Your task to perform on an android device: open device folders in google photos Image 0: 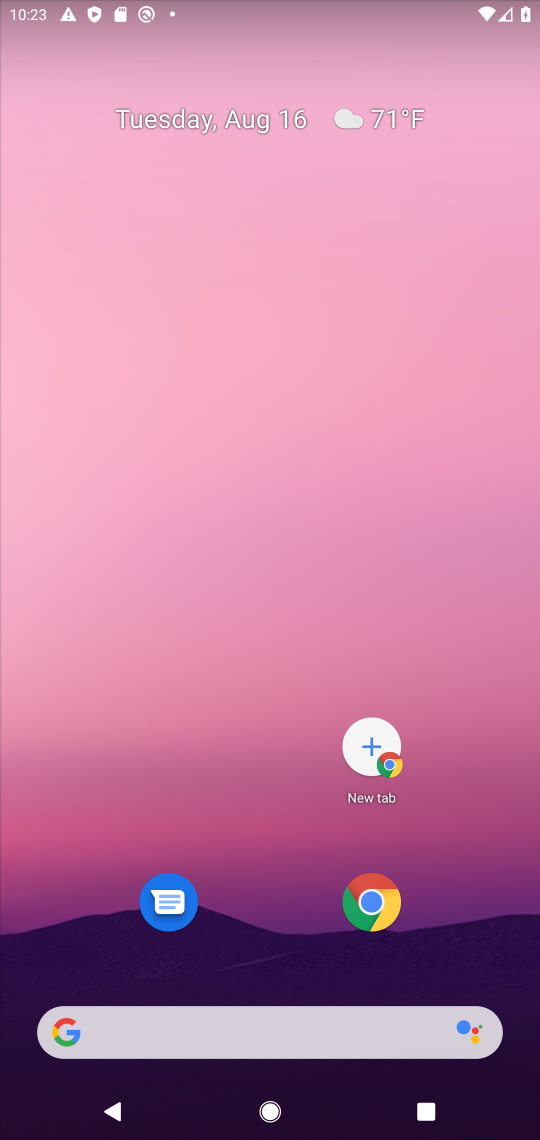
Step 0: drag from (219, 926) to (256, 282)
Your task to perform on an android device: open device folders in google photos Image 1: 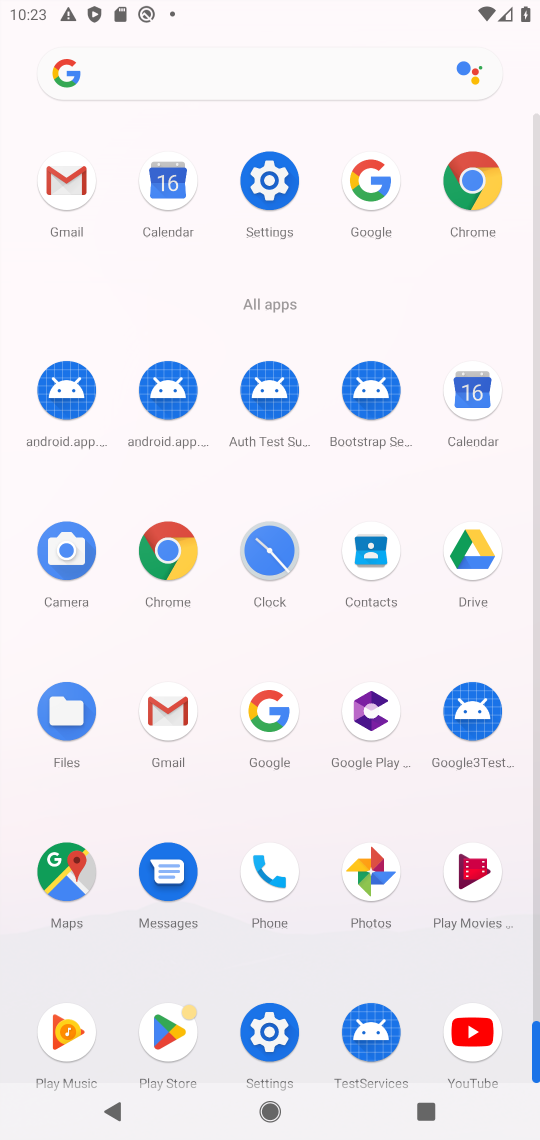
Step 1: click (348, 879)
Your task to perform on an android device: open device folders in google photos Image 2: 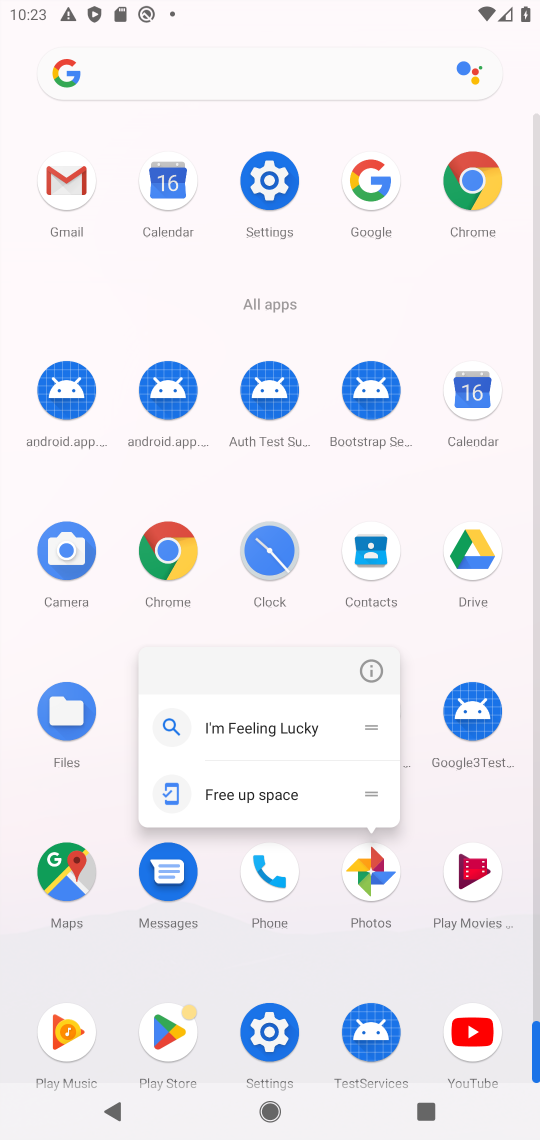
Step 2: click (364, 880)
Your task to perform on an android device: open device folders in google photos Image 3: 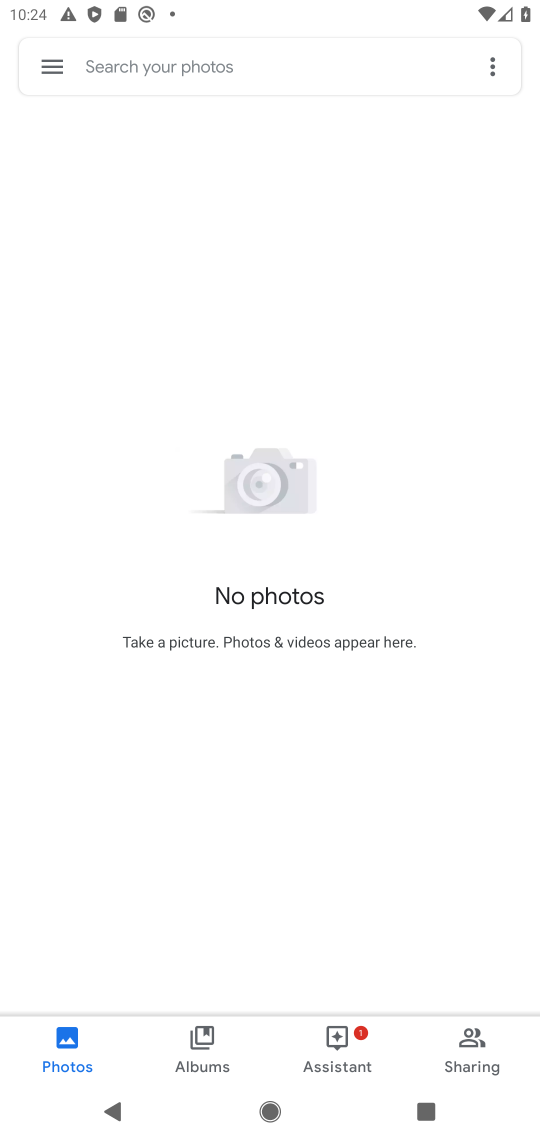
Step 3: click (47, 61)
Your task to perform on an android device: open device folders in google photos Image 4: 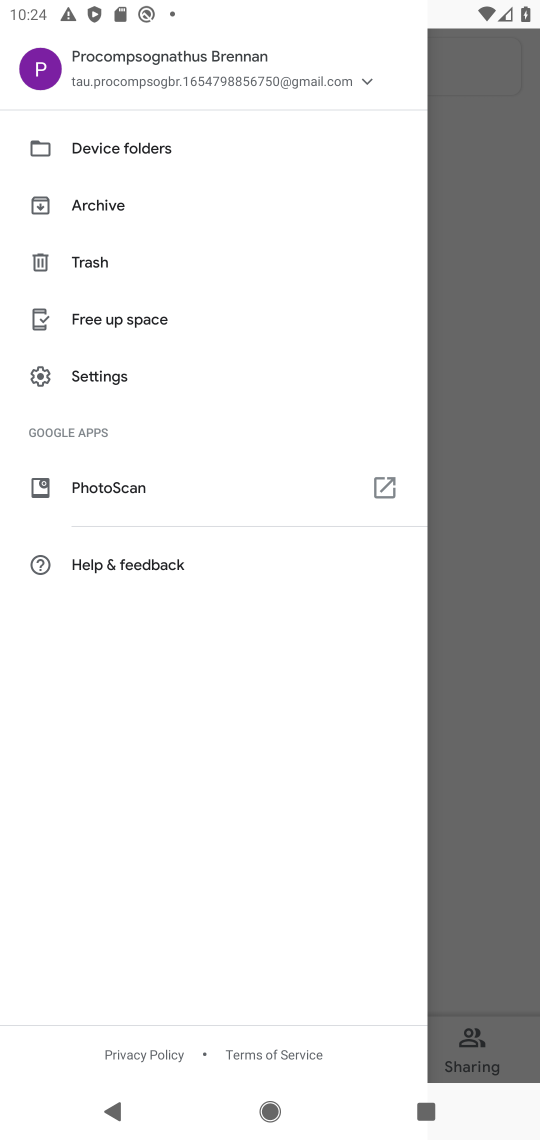
Step 4: click (88, 157)
Your task to perform on an android device: open device folders in google photos Image 5: 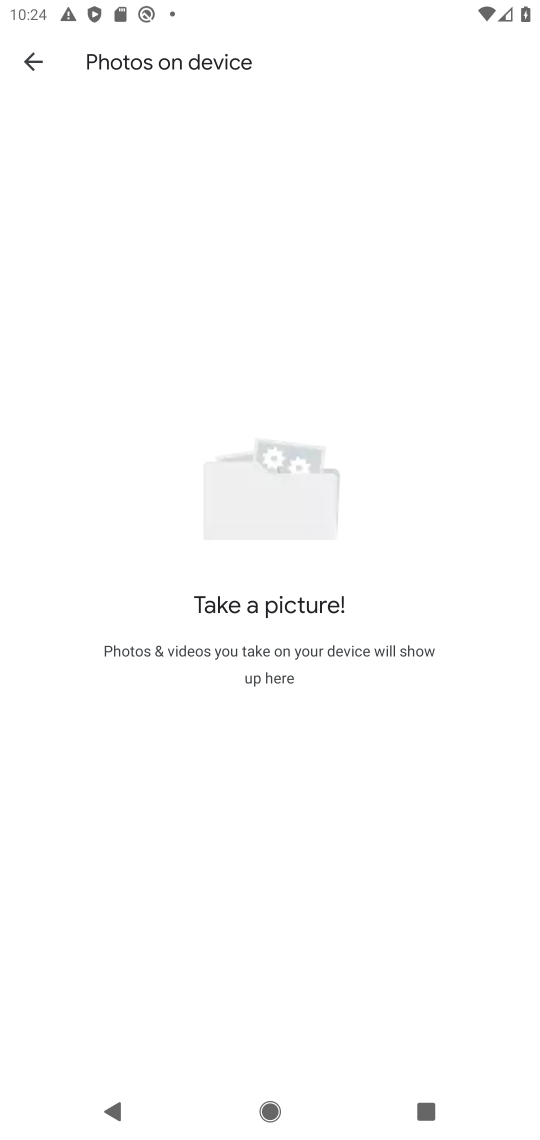
Step 5: task complete